Your task to perform on an android device: Open calendar and show me the second week of next month Image 0: 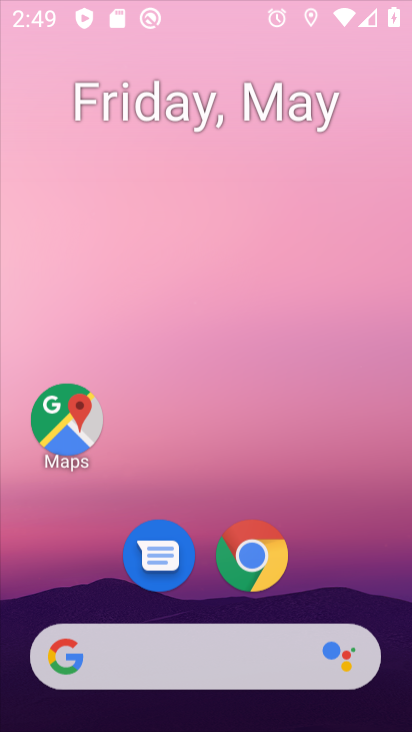
Step 0: click (305, 323)
Your task to perform on an android device: Open calendar and show me the second week of next month Image 1: 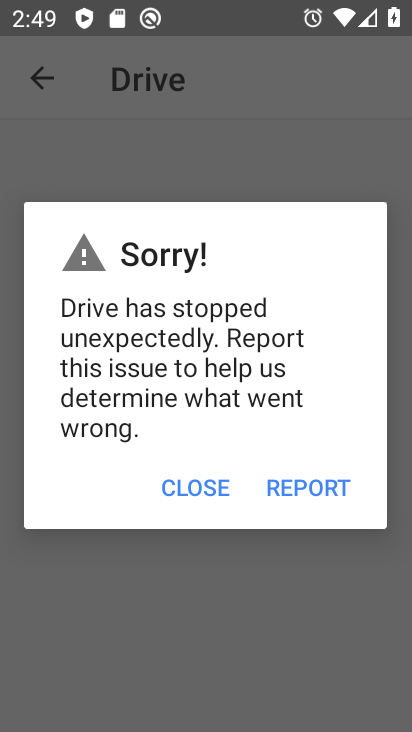
Step 1: click (222, 495)
Your task to perform on an android device: Open calendar and show me the second week of next month Image 2: 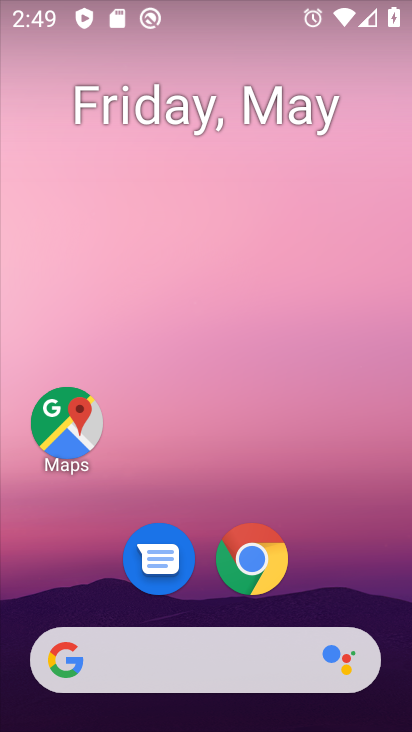
Step 2: drag from (338, 584) to (266, 195)
Your task to perform on an android device: Open calendar and show me the second week of next month Image 3: 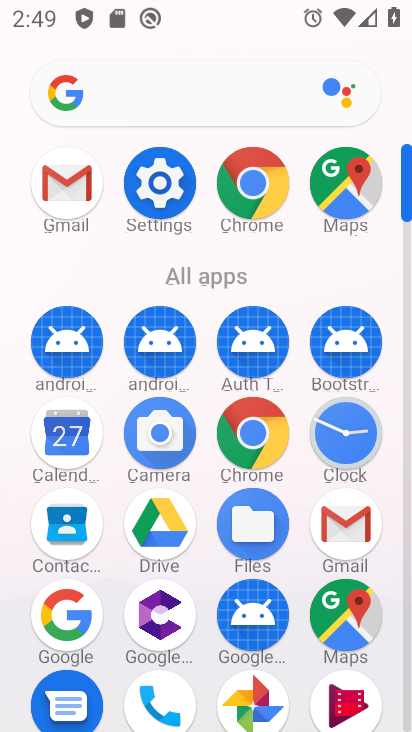
Step 3: click (57, 415)
Your task to perform on an android device: Open calendar and show me the second week of next month Image 4: 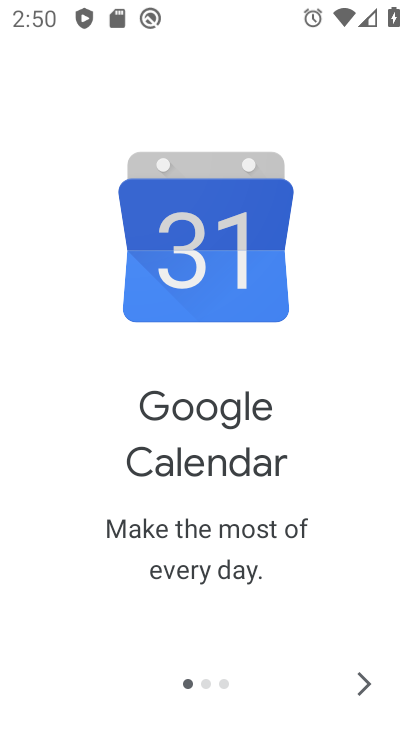
Step 4: click (364, 690)
Your task to perform on an android device: Open calendar and show me the second week of next month Image 5: 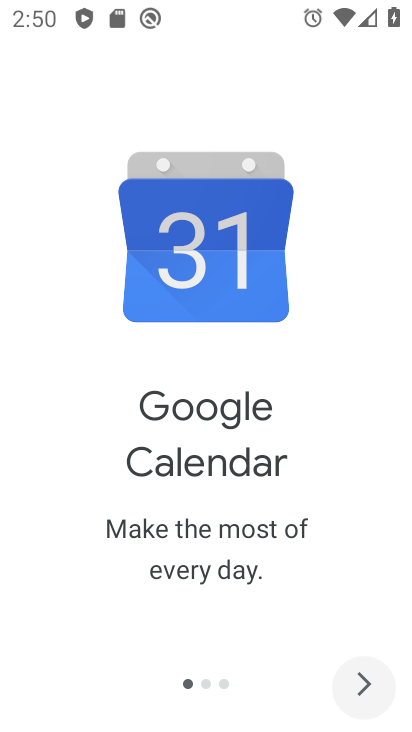
Step 5: click (364, 690)
Your task to perform on an android device: Open calendar and show me the second week of next month Image 6: 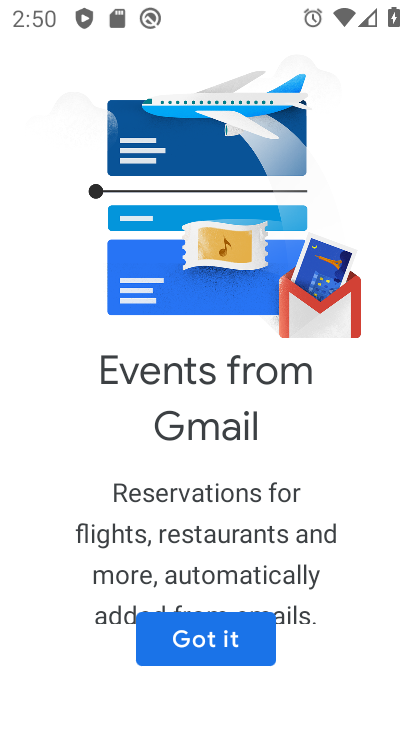
Step 6: click (364, 690)
Your task to perform on an android device: Open calendar and show me the second week of next month Image 7: 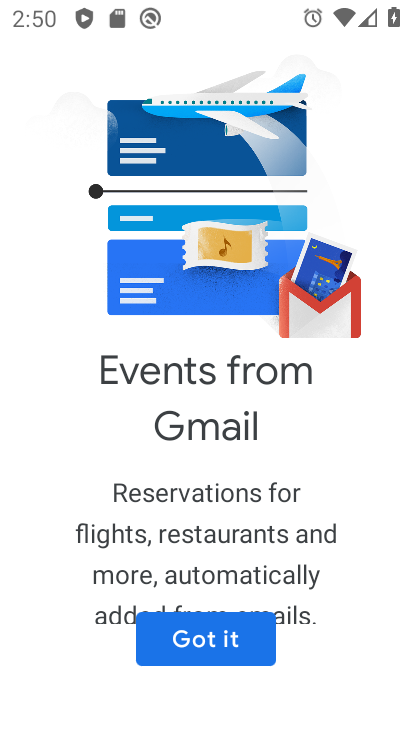
Step 7: click (173, 635)
Your task to perform on an android device: Open calendar and show me the second week of next month Image 8: 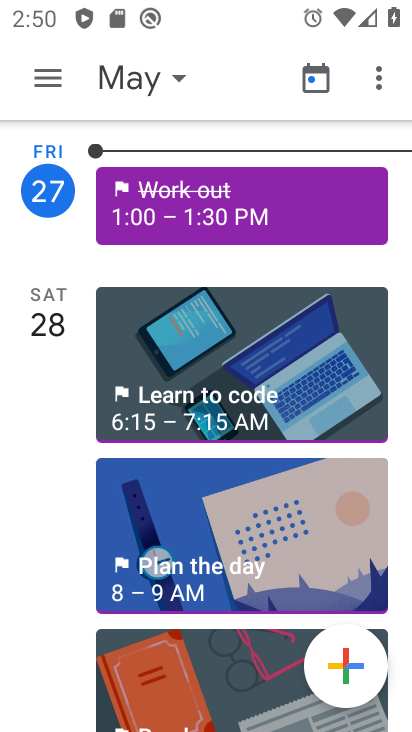
Step 8: click (135, 85)
Your task to perform on an android device: Open calendar and show me the second week of next month Image 9: 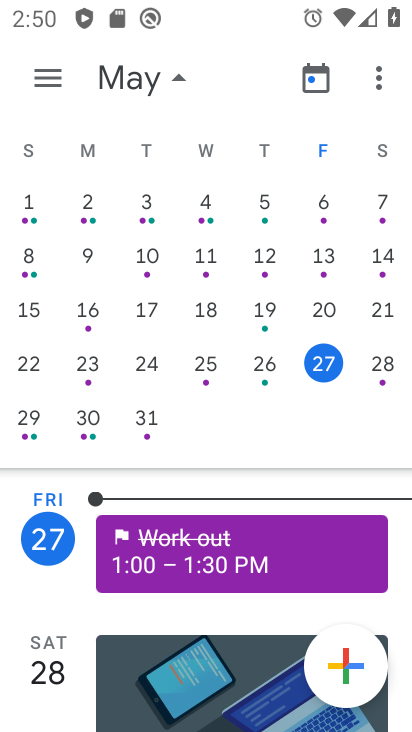
Step 9: drag from (364, 303) to (75, 246)
Your task to perform on an android device: Open calendar and show me the second week of next month Image 10: 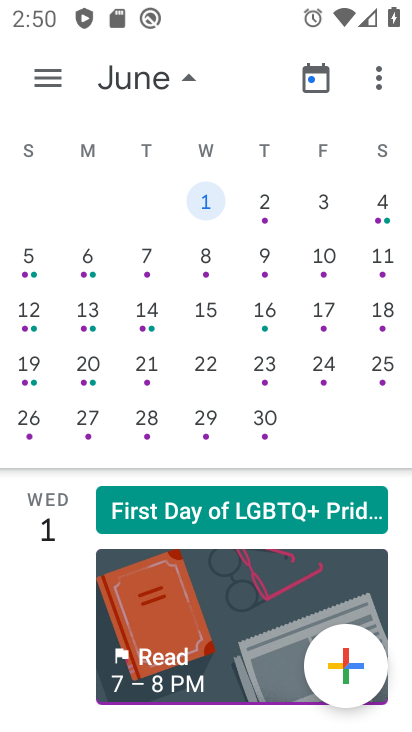
Step 10: click (160, 306)
Your task to perform on an android device: Open calendar and show me the second week of next month Image 11: 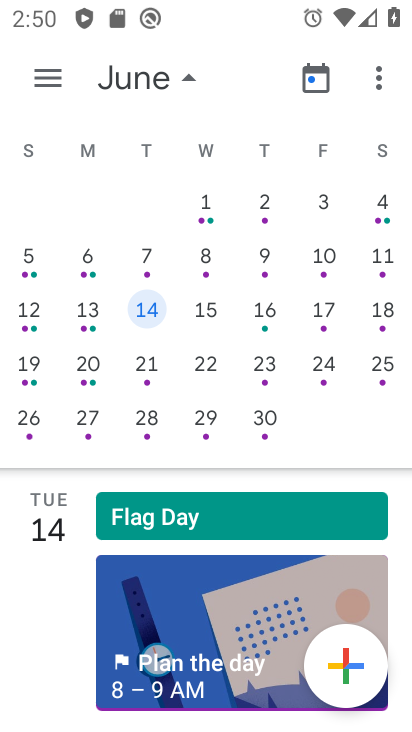
Step 11: task complete